Your task to perform on an android device: Open Chrome and go to settings Image 0: 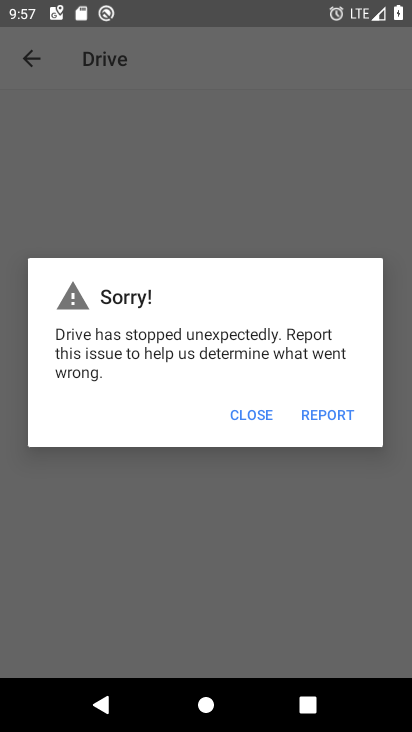
Step 0: click (126, 556)
Your task to perform on an android device: Open Chrome and go to settings Image 1: 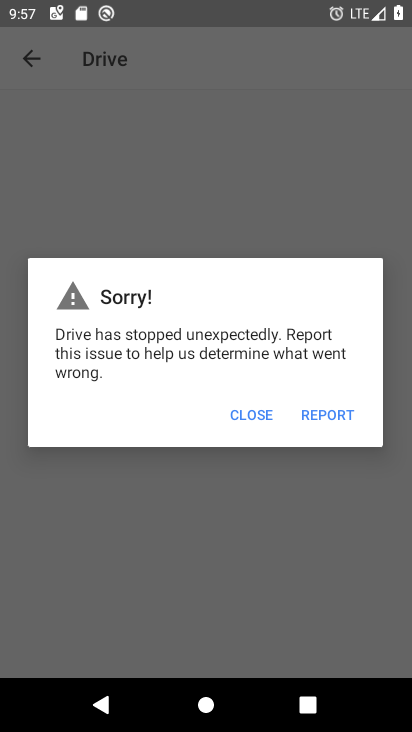
Step 1: press home button
Your task to perform on an android device: Open Chrome and go to settings Image 2: 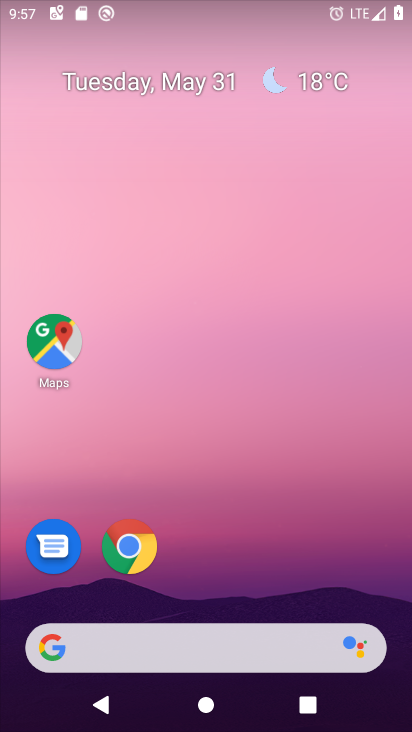
Step 2: click (130, 564)
Your task to perform on an android device: Open Chrome and go to settings Image 3: 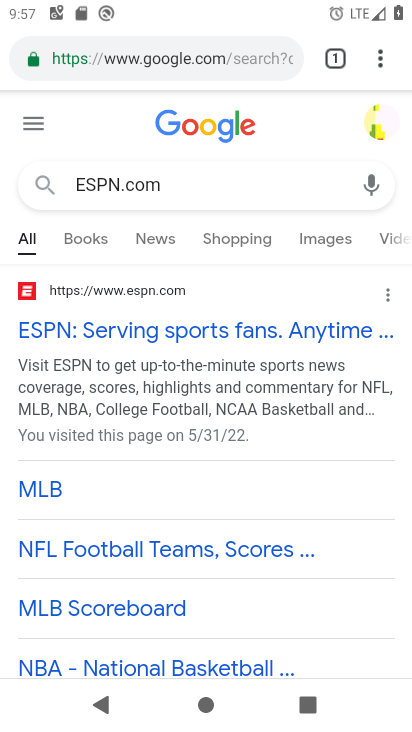
Step 3: click (376, 54)
Your task to perform on an android device: Open Chrome and go to settings Image 4: 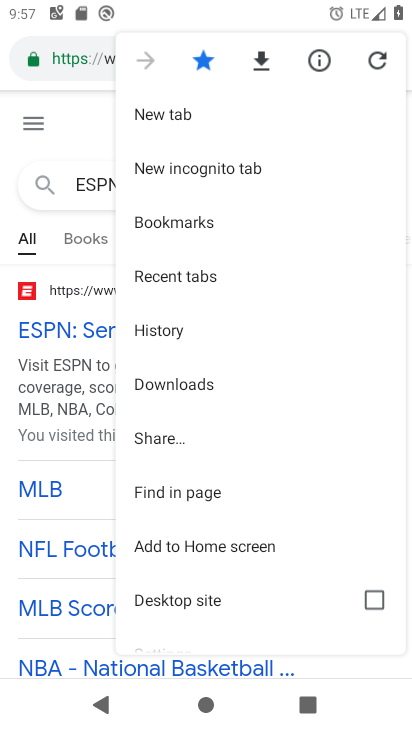
Step 4: drag from (178, 581) to (220, 282)
Your task to perform on an android device: Open Chrome and go to settings Image 5: 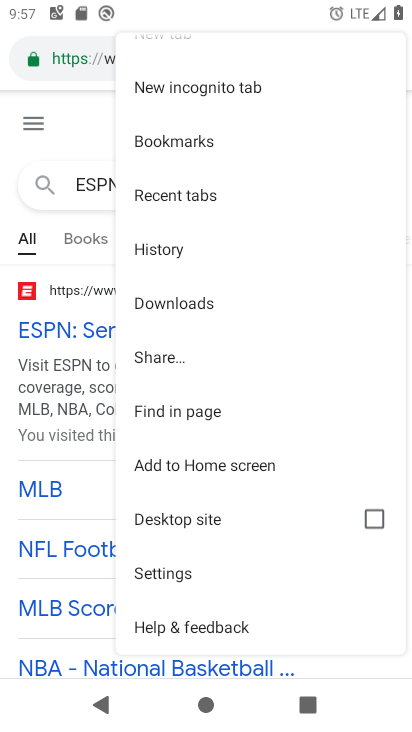
Step 5: click (178, 576)
Your task to perform on an android device: Open Chrome and go to settings Image 6: 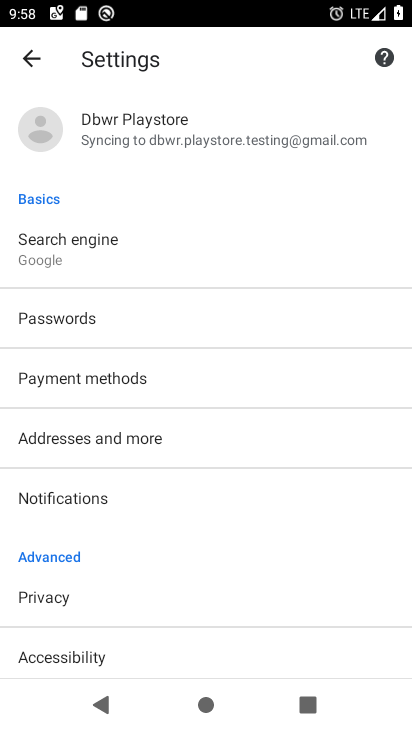
Step 6: task complete